Your task to perform on an android device: turn off notifications in google photos Image 0: 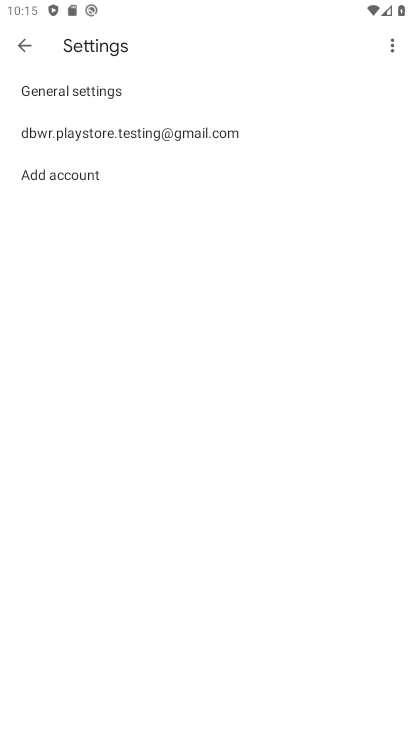
Step 0: press home button
Your task to perform on an android device: turn off notifications in google photos Image 1: 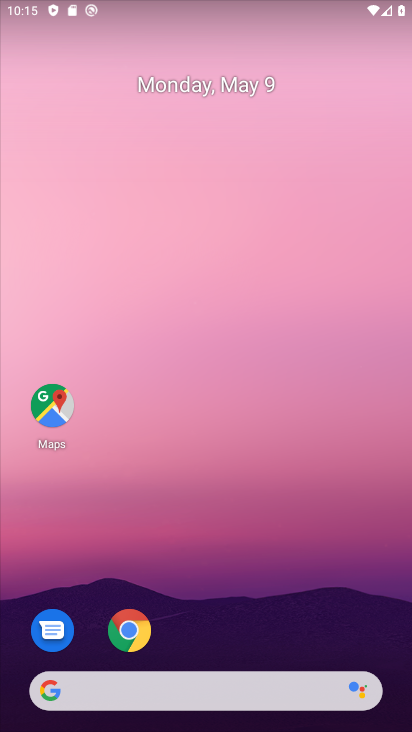
Step 1: drag from (260, 445) to (284, 218)
Your task to perform on an android device: turn off notifications in google photos Image 2: 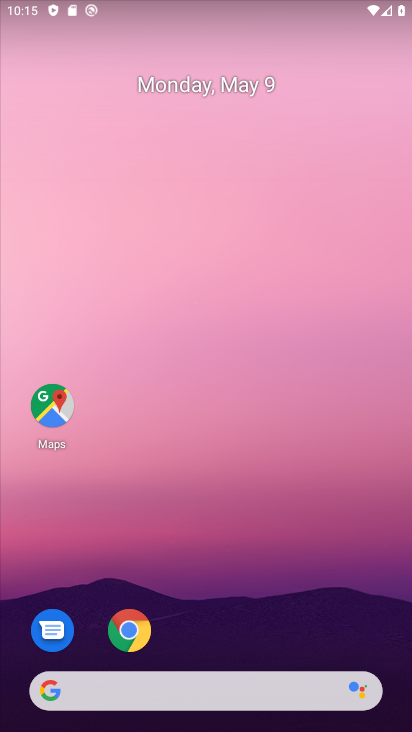
Step 2: drag from (220, 640) to (261, 156)
Your task to perform on an android device: turn off notifications in google photos Image 3: 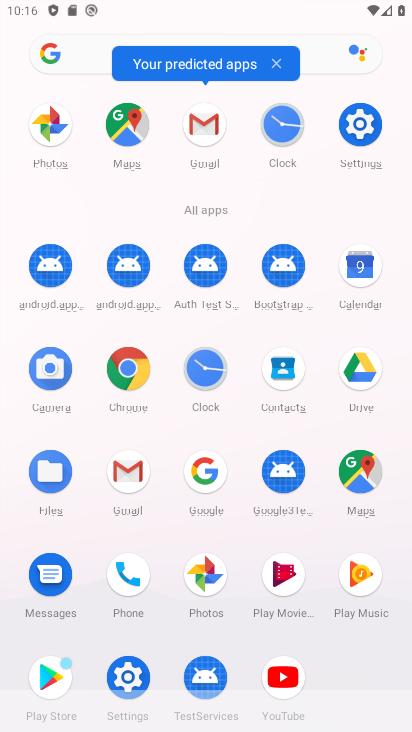
Step 3: click (54, 144)
Your task to perform on an android device: turn off notifications in google photos Image 4: 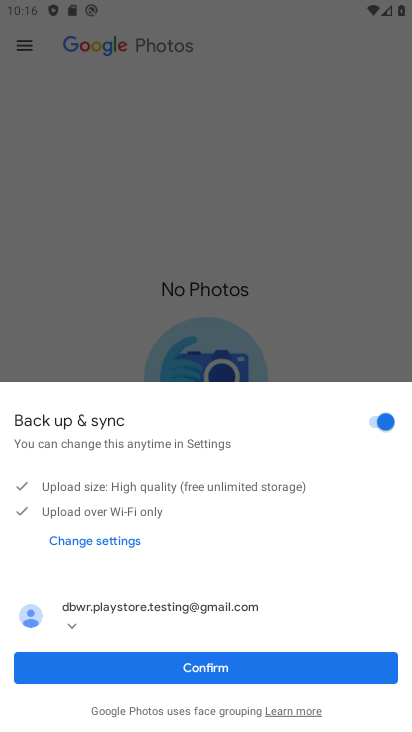
Step 4: click (172, 657)
Your task to perform on an android device: turn off notifications in google photos Image 5: 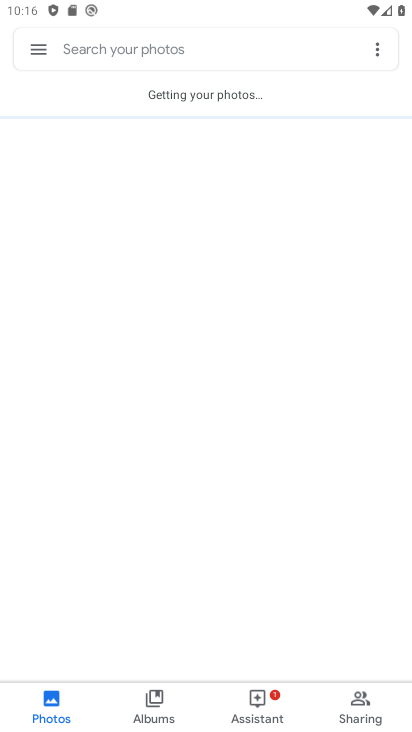
Step 5: click (46, 45)
Your task to perform on an android device: turn off notifications in google photos Image 6: 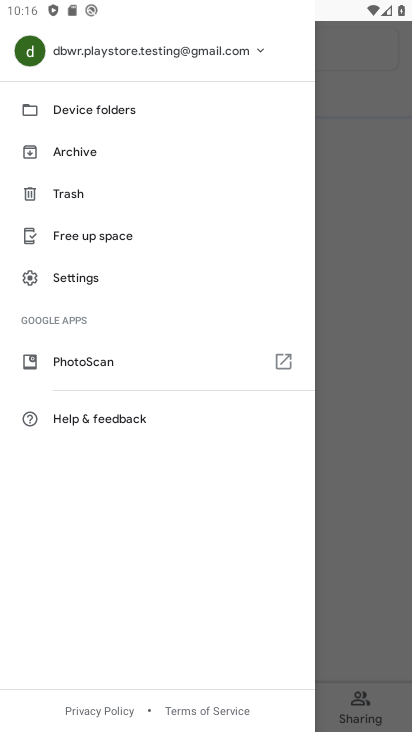
Step 6: click (83, 283)
Your task to perform on an android device: turn off notifications in google photos Image 7: 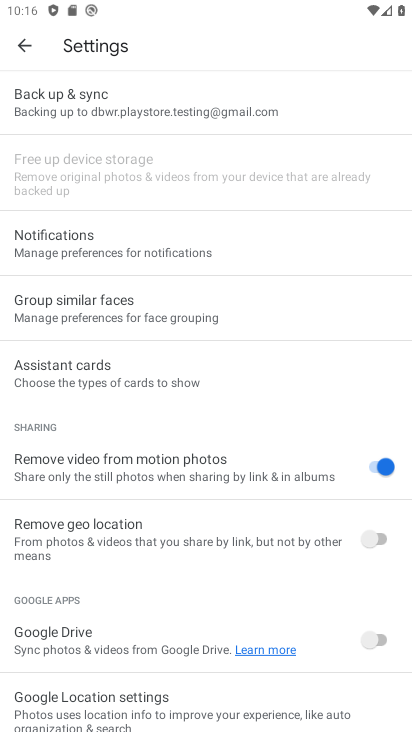
Step 7: click (117, 248)
Your task to perform on an android device: turn off notifications in google photos Image 8: 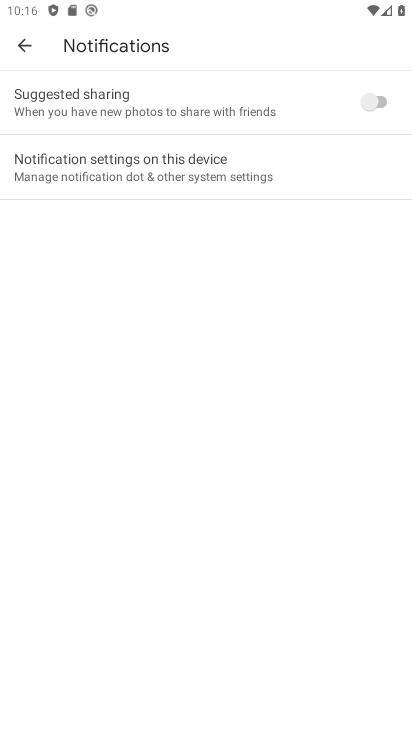
Step 8: click (322, 163)
Your task to perform on an android device: turn off notifications in google photos Image 9: 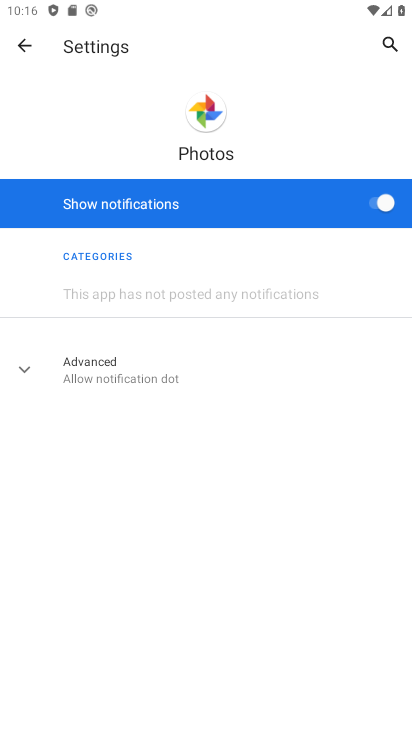
Step 9: click (366, 199)
Your task to perform on an android device: turn off notifications in google photos Image 10: 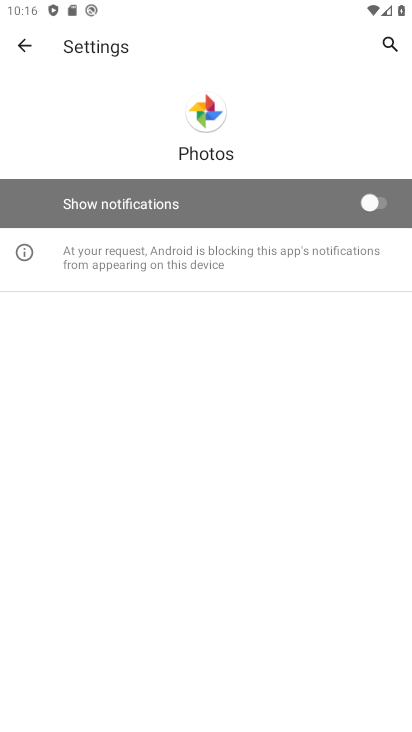
Step 10: task complete